Your task to perform on an android device: Go to Wikipedia Image 0: 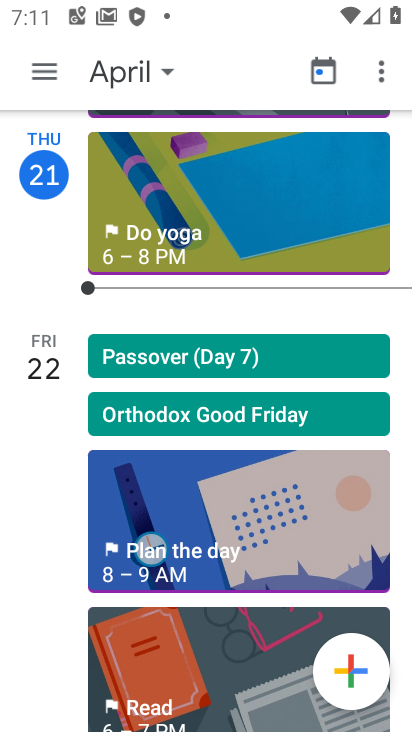
Step 0: press home button
Your task to perform on an android device: Go to Wikipedia Image 1: 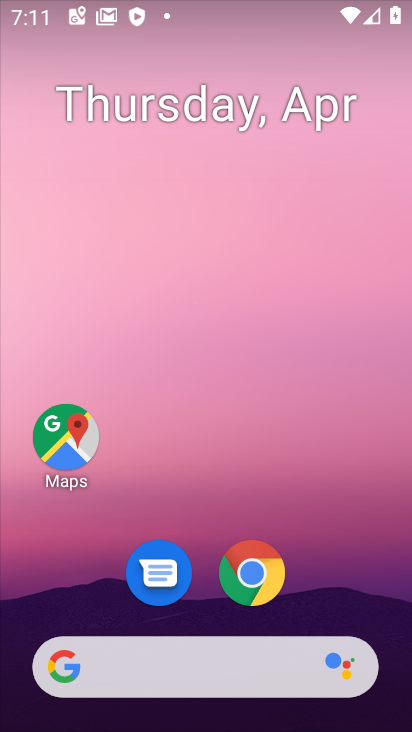
Step 1: click (245, 568)
Your task to perform on an android device: Go to Wikipedia Image 2: 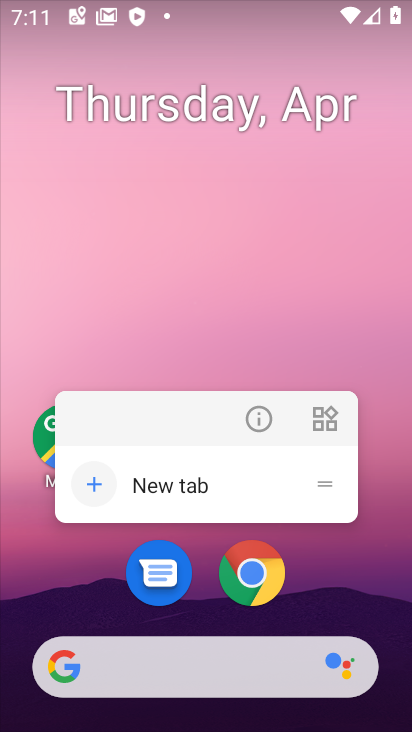
Step 2: click (245, 568)
Your task to perform on an android device: Go to Wikipedia Image 3: 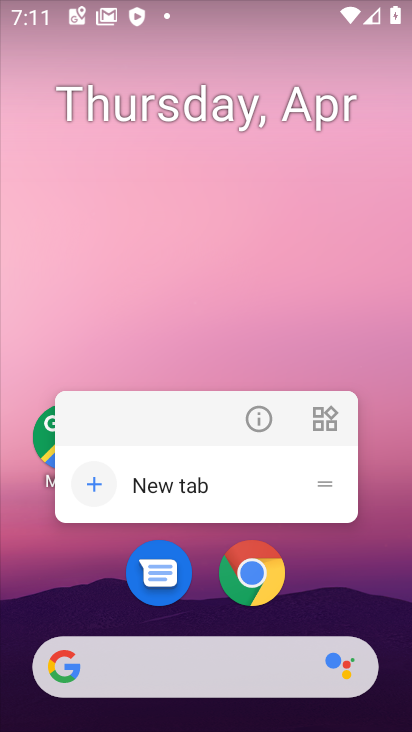
Step 3: click (245, 568)
Your task to perform on an android device: Go to Wikipedia Image 4: 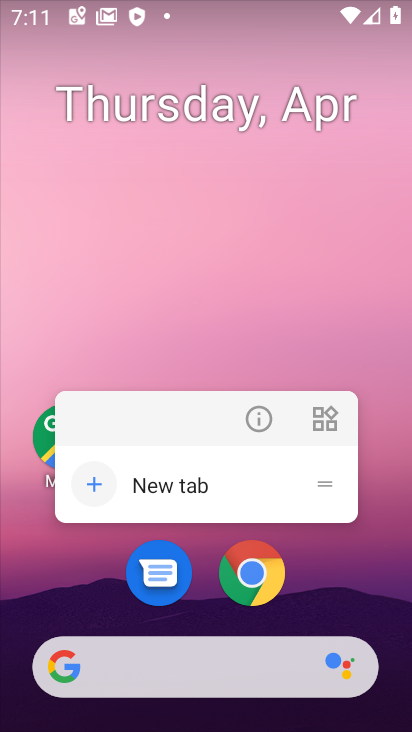
Step 4: click (245, 568)
Your task to perform on an android device: Go to Wikipedia Image 5: 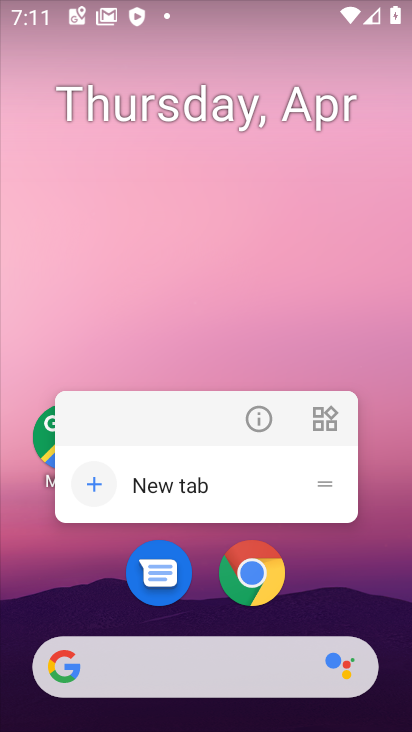
Step 5: click (245, 568)
Your task to perform on an android device: Go to Wikipedia Image 6: 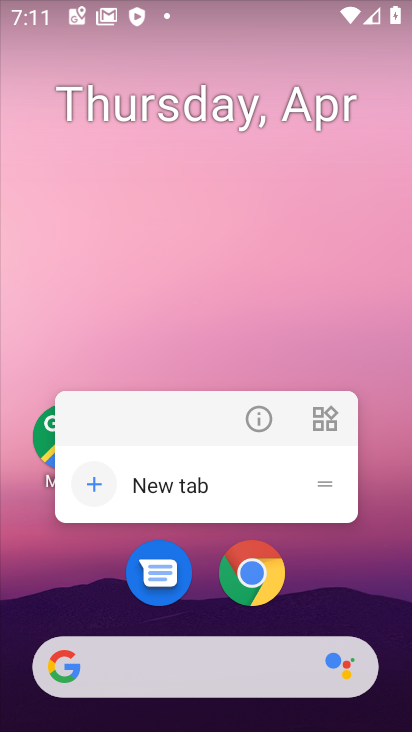
Step 6: click (245, 568)
Your task to perform on an android device: Go to Wikipedia Image 7: 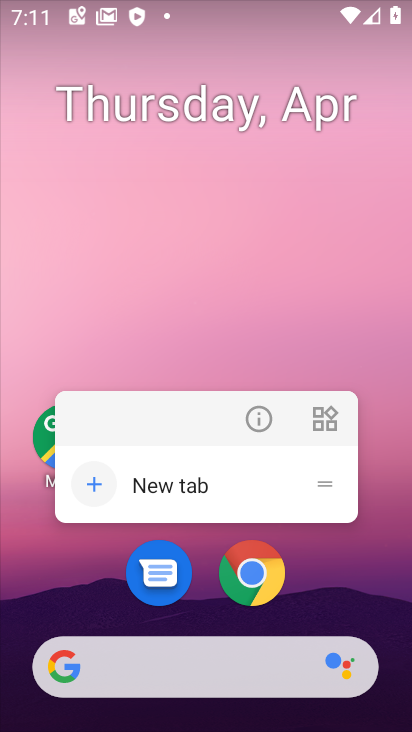
Step 7: click (245, 568)
Your task to perform on an android device: Go to Wikipedia Image 8: 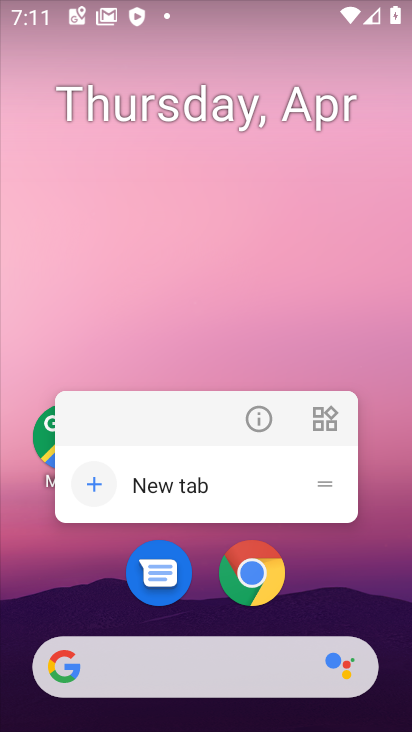
Step 8: click (245, 568)
Your task to perform on an android device: Go to Wikipedia Image 9: 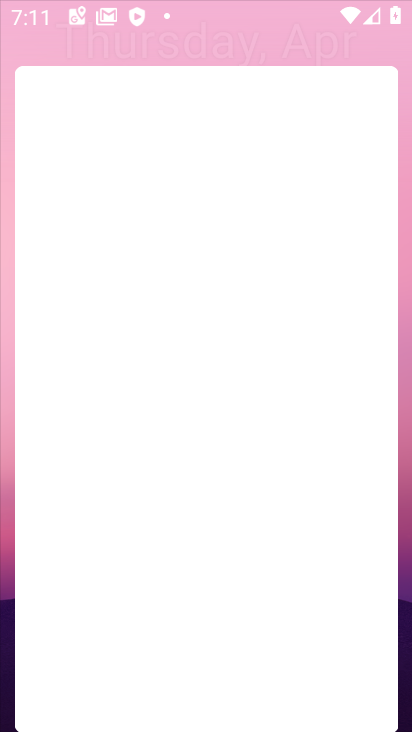
Step 9: click (245, 568)
Your task to perform on an android device: Go to Wikipedia Image 10: 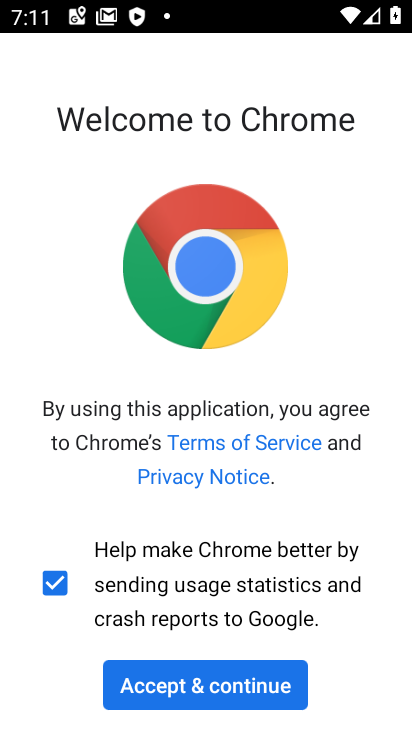
Step 10: click (226, 676)
Your task to perform on an android device: Go to Wikipedia Image 11: 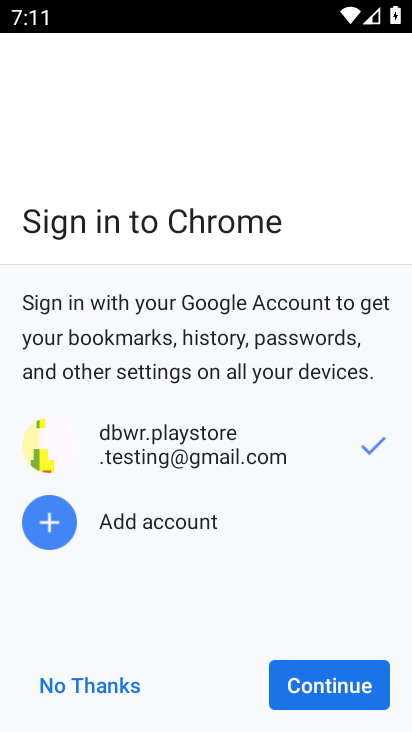
Step 11: click (310, 678)
Your task to perform on an android device: Go to Wikipedia Image 12: 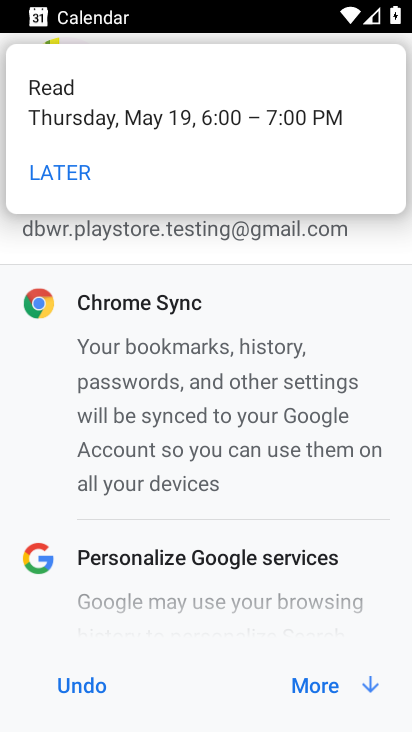
Step 12: click (310, 678)
Your task to perform on an android device: Go to Wikipedia Image 13: 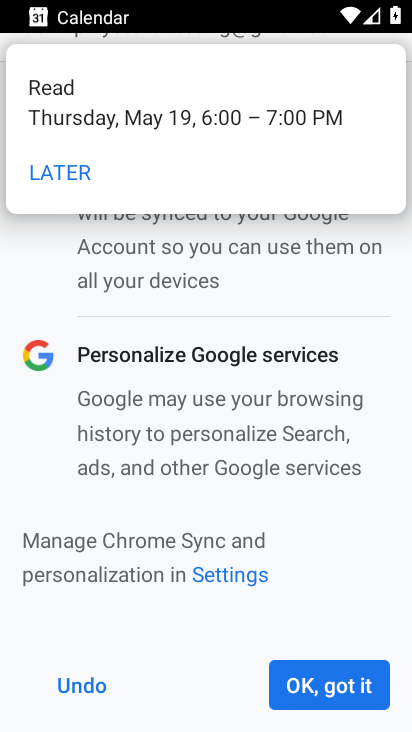
Step 13: click (310, 678)
Your task to perform on an android device: Go to Wikipedia Image 14: 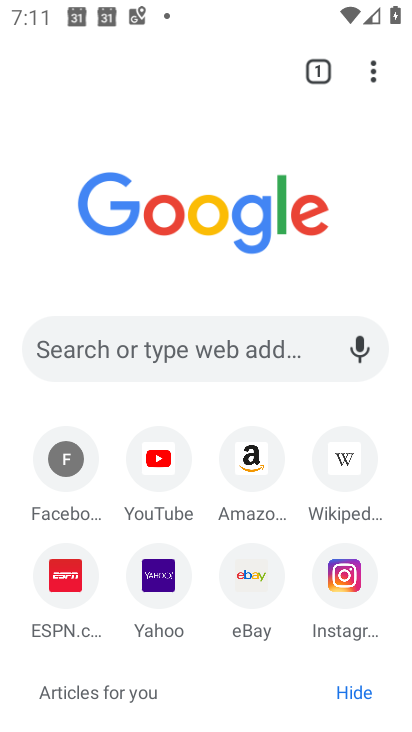
Step 14: click (129, 353)
Your task to perform on an android device: Go to Wikipedia Image 15: 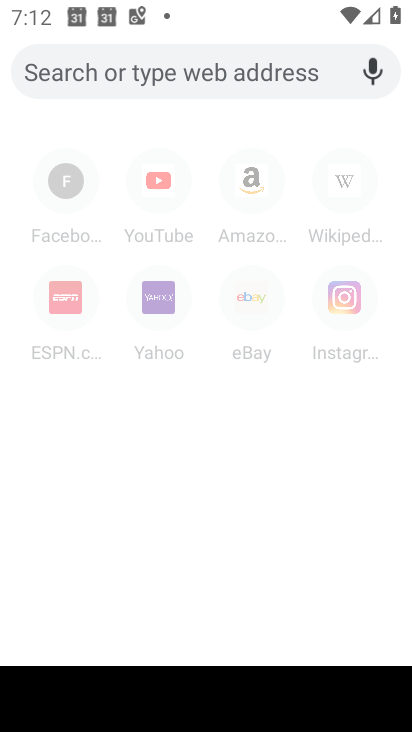
Step 15: type " Wikipedia"
Your task to perform on an android device: Go to Wikipedia Image 16: 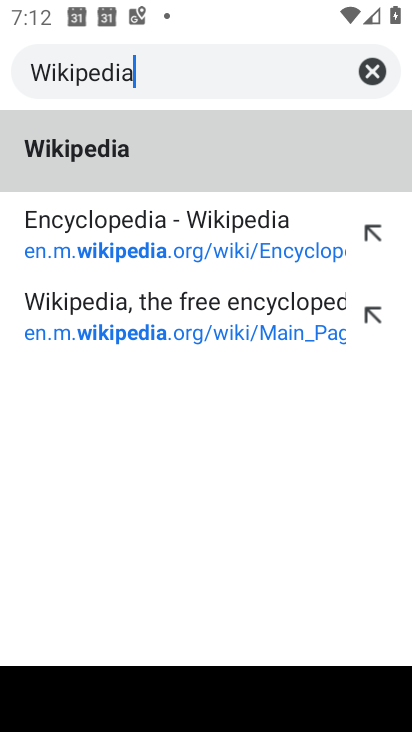
Step 16: click (108, 148)
Your task to perform on an android device: Go to Wikipedia Image 17: 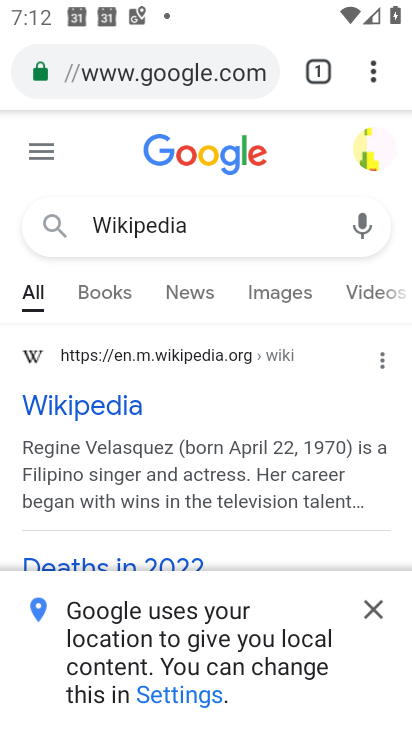
Step 17: task complete